Your task to perform on an android device: turn on the 24-hour format for clock Image 0: 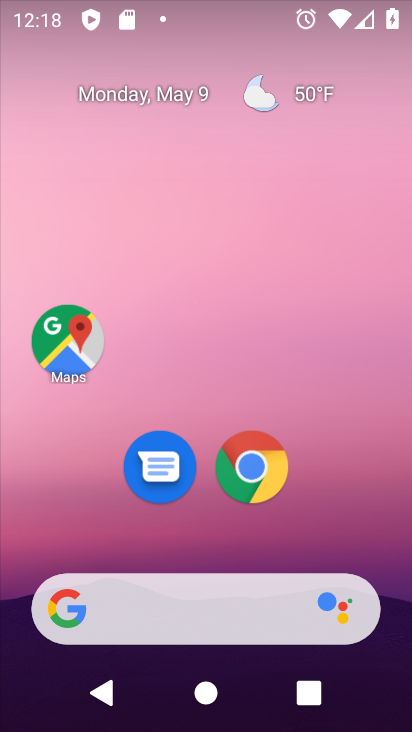
Step 0: drag from (204, 554) to (202, 115)
Your task to perform on an android device: turn on the 24-hour format for clock Image 1: 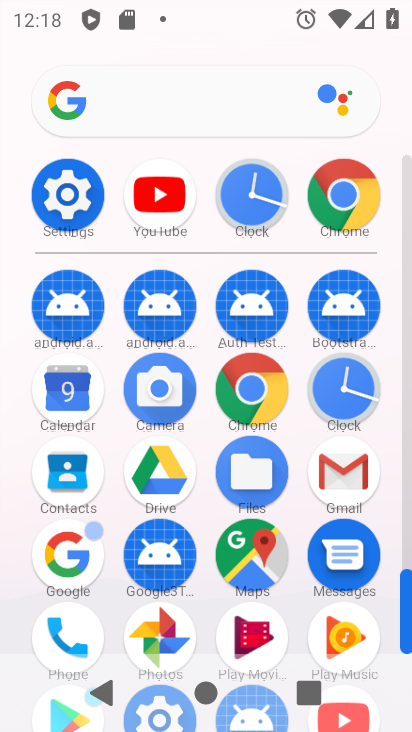
Step 1: click (342, 380)
Your task to perform on an android device: turn on the 24-hour format for clock Image 2: 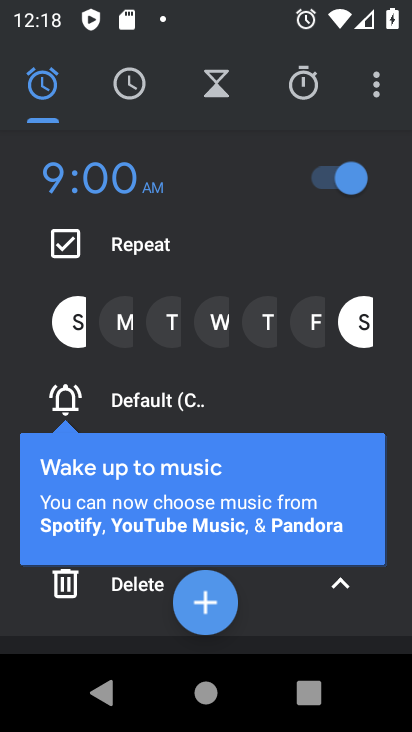
Step 2: click (378, 84)
Your task to perform on an android device: turn on the 24-hour format for clock Image 3: 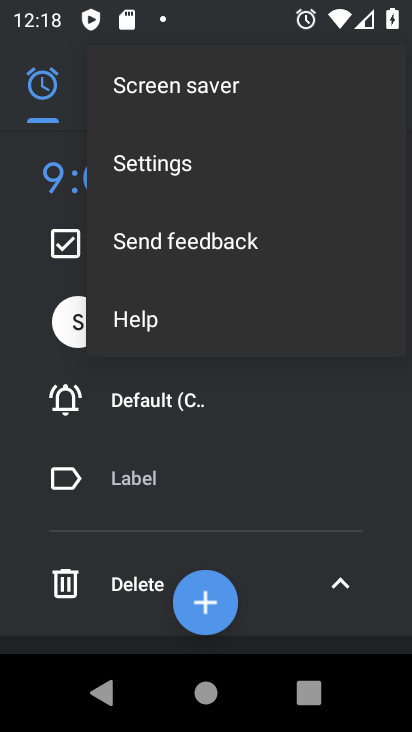
Step 3: click (193, 155)
Your task to perform on an android device: turn on the 24-hour format for clock Image 4: 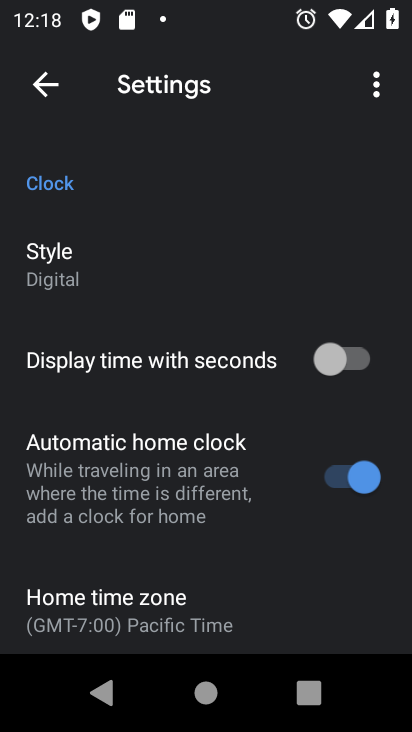
Step 4: drag from (228, 562) to (297, 146)
Your task to perform on an android device: turn on the 24-hour format for clock Image 5: 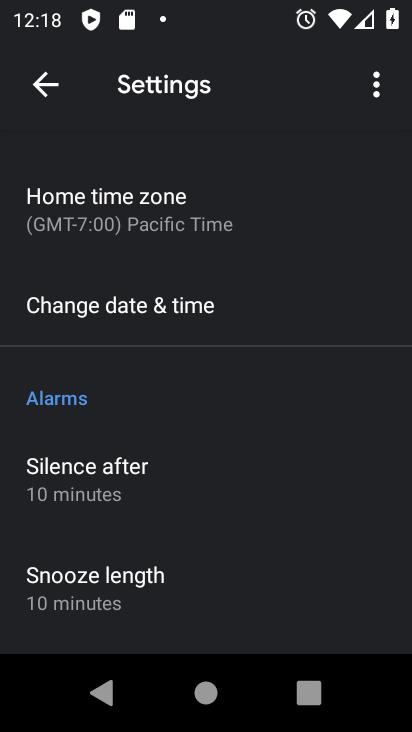
Step 5: click (187, 319)
Your task to perform on an android device: turn on the 24-hour format for clock Image 6: 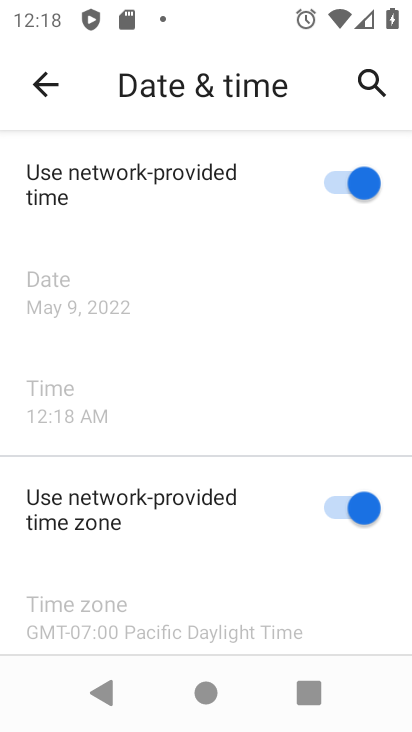
Step 6: drag from (196, 571) to (250, 186)
Your task to perform on an android device: turn on the 24-hour format for clock Image 7: 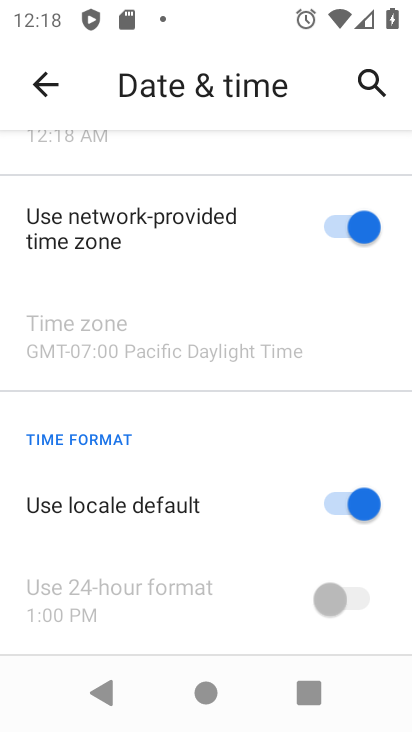
Step 7: click (352, 495)
Your task to perform on an android device: turn on the 24-hour format for clock Image 8: 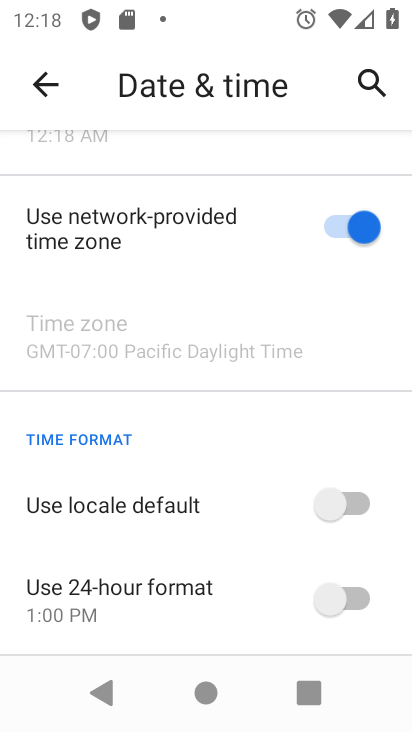
Step 8: click (351, 598)
Your task to perform on an android device: turn on the 24-hour format for clock Image 9: 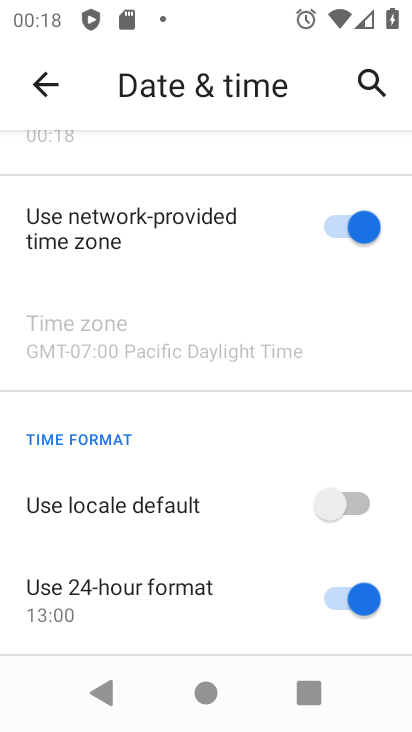
Step 9: task complete